Your task to perform on an android device: turn off wifi Image 0: 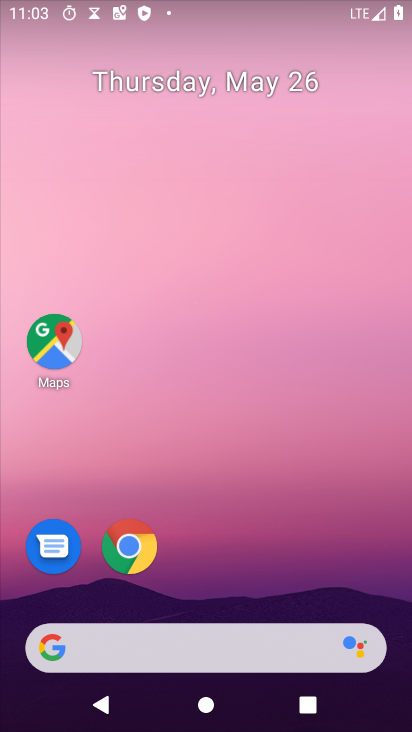
Step 0: drag from (296, 537) to (299, 199)
Your task to perform on an android device: turn off wifi Image 1: 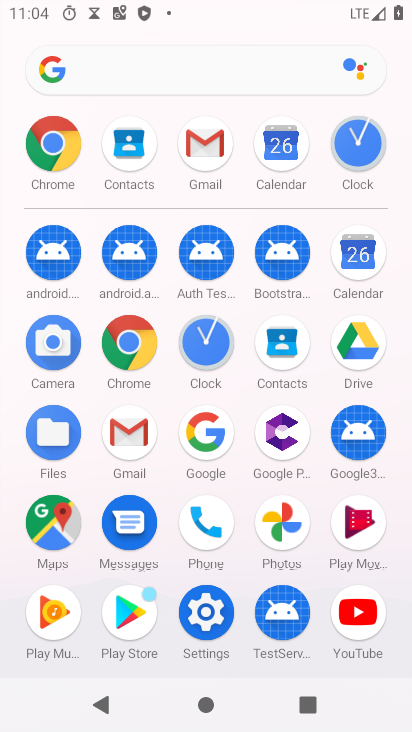
Step 1: click (199, 626)
Your task to perform on an android device: turn off wifi Image 2: 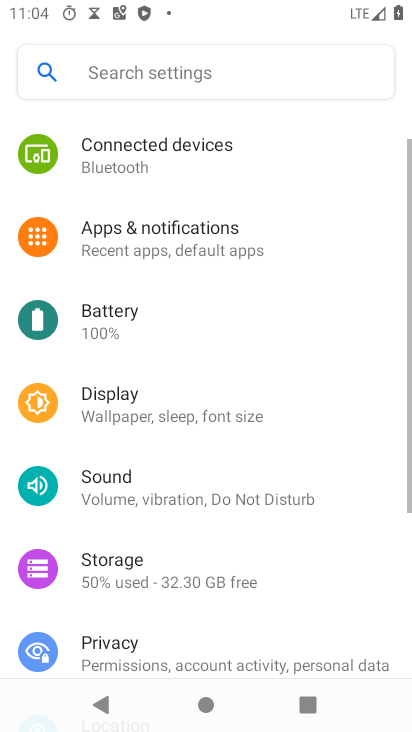
Step 2: drag from (222, 237) to (258, 559)
Your task to perform on an android device: turn off wifi Image 3: 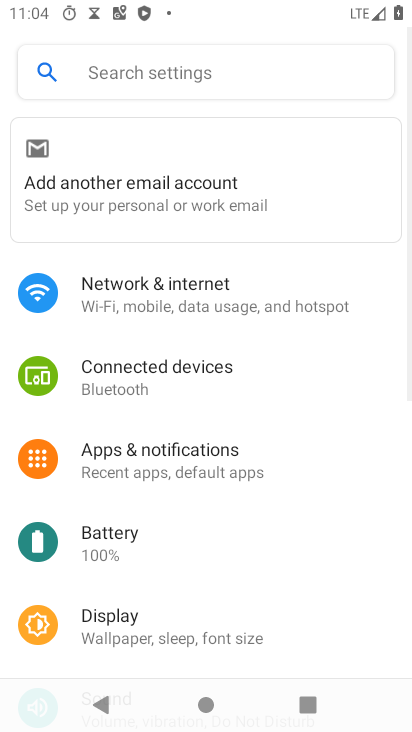
Step 3: click (244, 308)
Your task to perform on an android device: turn off wifi Image 4: 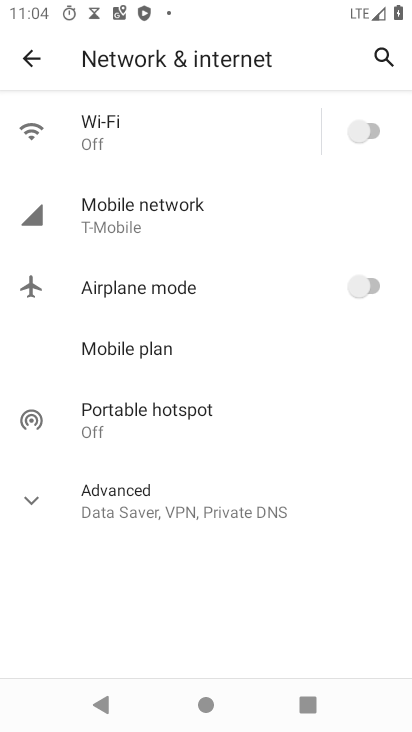
Step 4: click (377, 133)
Your task to perform on an android device: turn off wifi Image 5: 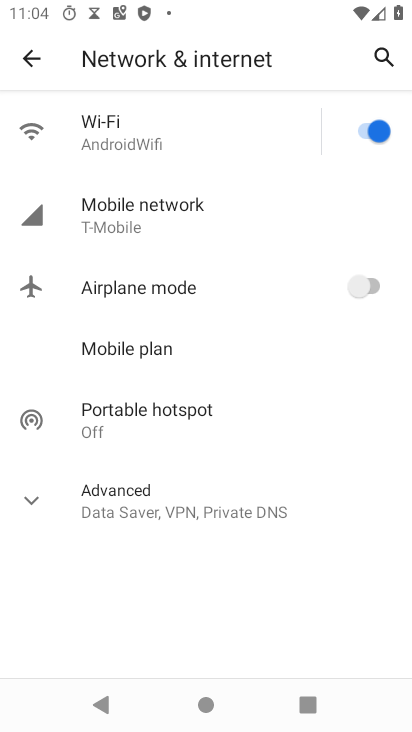
Step 5: task complete